Your task to perform on an android device: Go to Google maps Image 0: 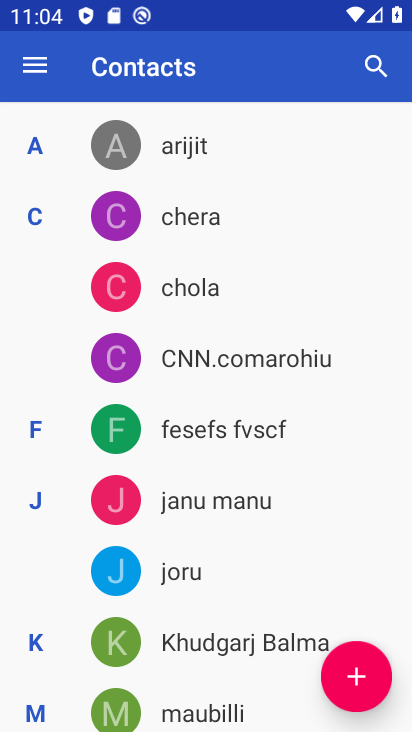
Step 0: press home button
Your task to perform on an android device: Go to Google maps Image 1: 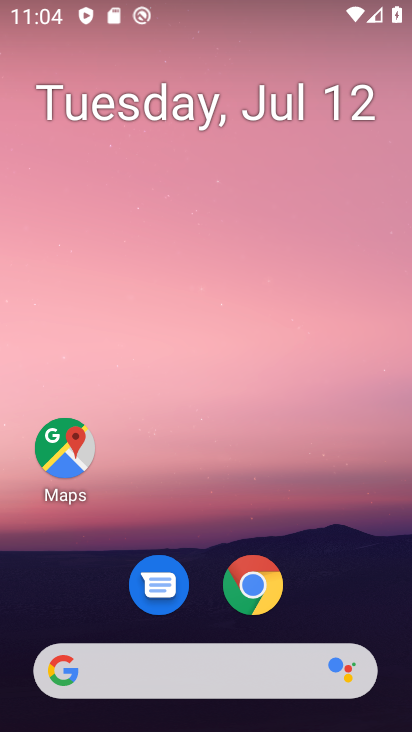
Step 1: click (68, 444)
Your task to perform on an android device: Go to Google maps Image 2: 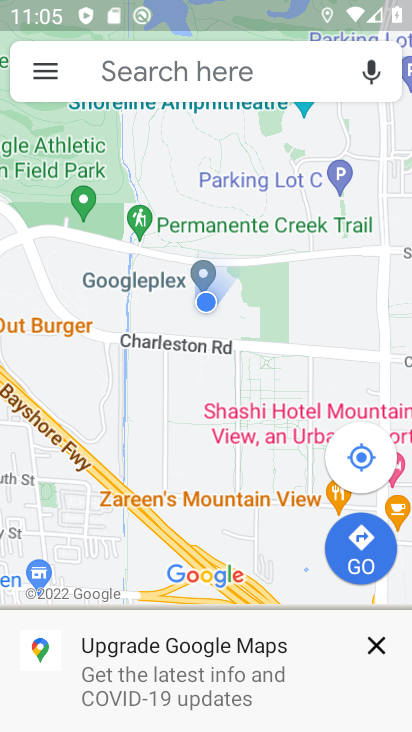
Step 2: task complete